Your task to perform on an android device: Open location settings Image 0: 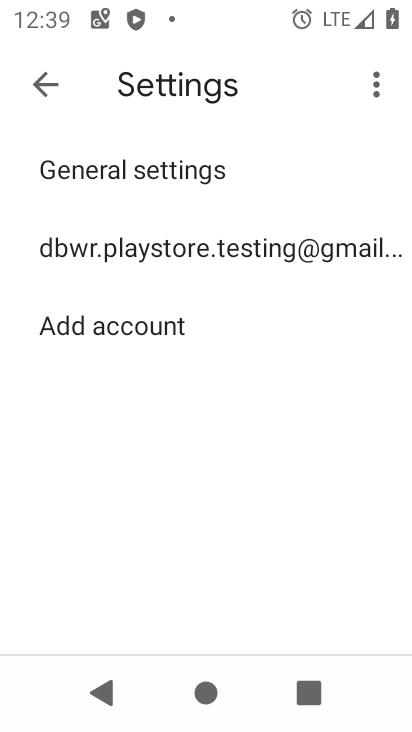
Step 0: press home button
Your task to perform on an android device: Open location settings Image 1: 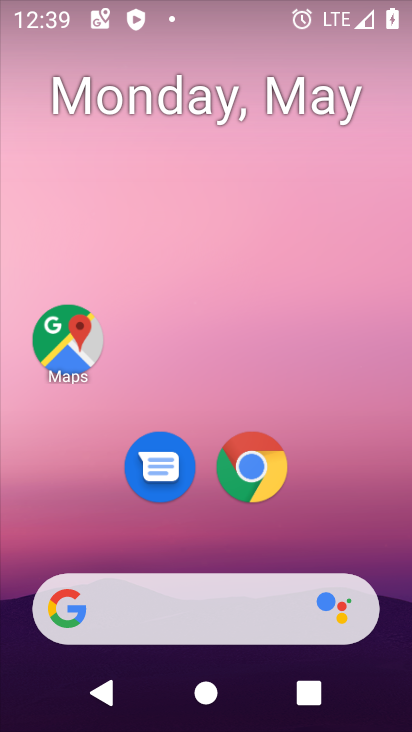
Step 1: drag from (371, 566) to (410, 27)
Your task to perform on an android device: Open location settings Image 2: 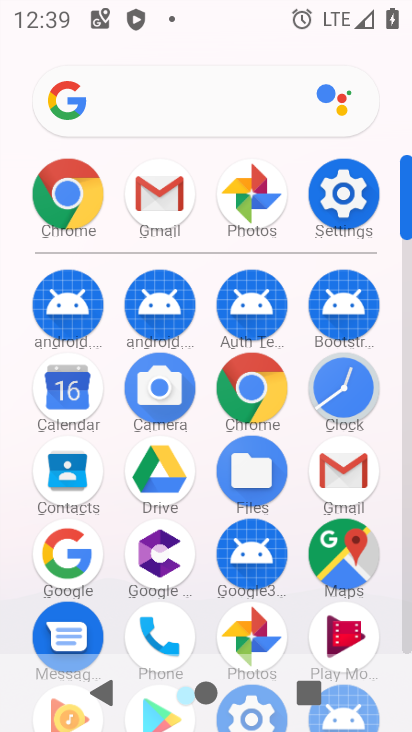
Step 2: click (332, 193)
Your task to perform on an android device: Open location settings Image 3: 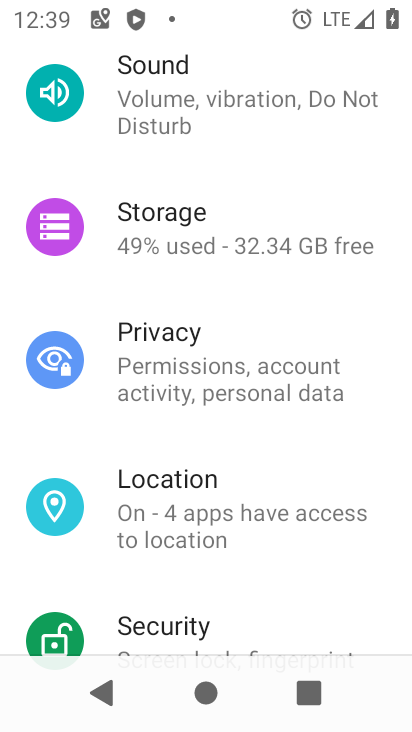
Step 3: click (167, 528)
Your task to perform on an android device: Open location settings Image 4: 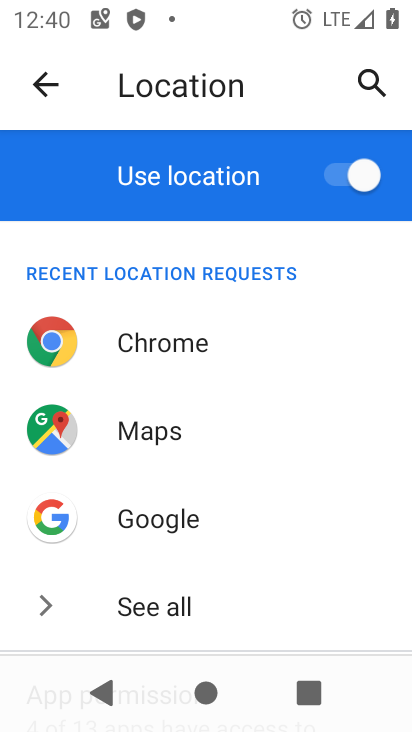
Step 4: task complete